Your task to perform on an android device: Go to Maps Image 0: 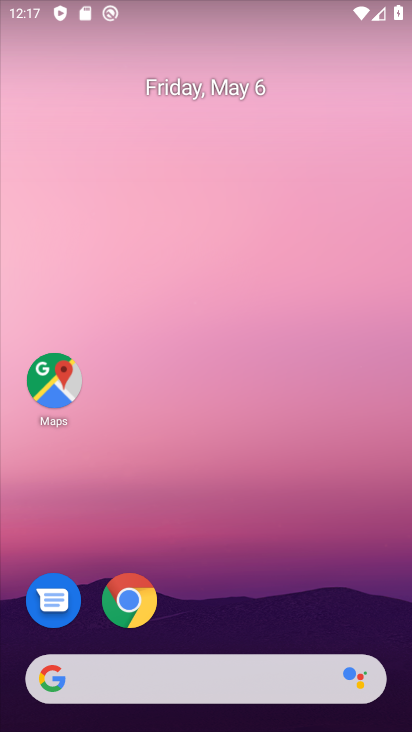
Step 0: drag from (307, 606) to (263, 17)
Your task to perform on an android device: Go to Maps Image 1: 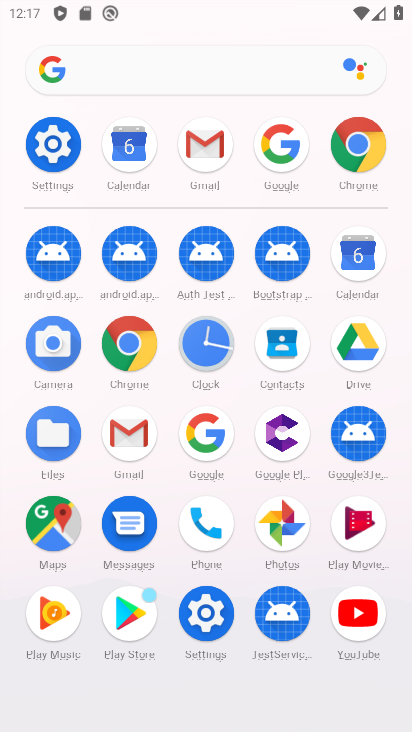
Step 1: click (68, 526)
Your task to perform on an android device: Go to Maps Image 2: 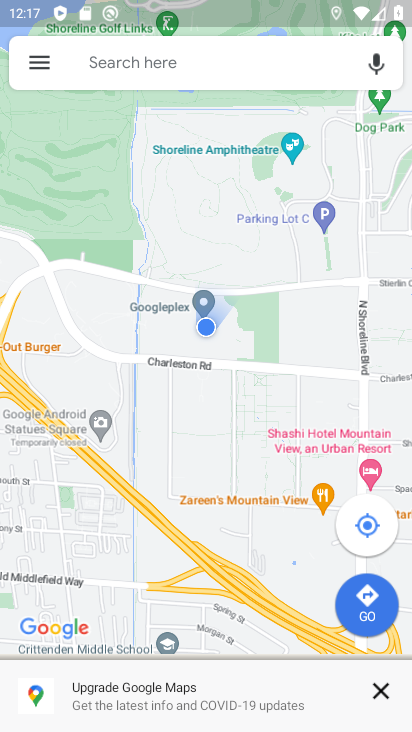
Step 2: task complete